Your task to perform on an android device: turn vacation reply on in the gmail app Image 0: 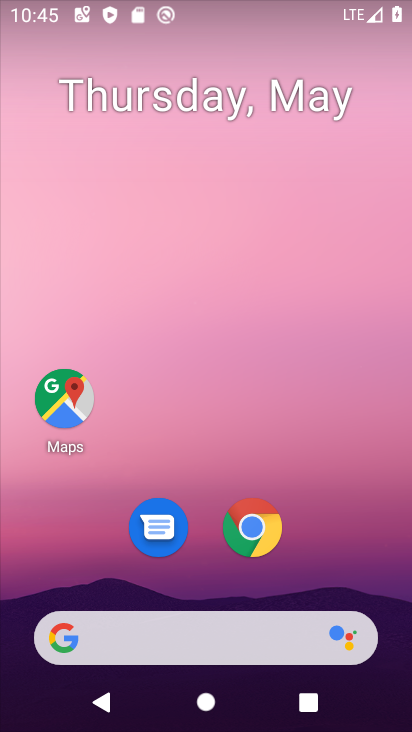
Step 0: drag from (325, 553) to (314, 98)
Your task to perform on an android device: turn vacation reply on in the gmail app Image 1: 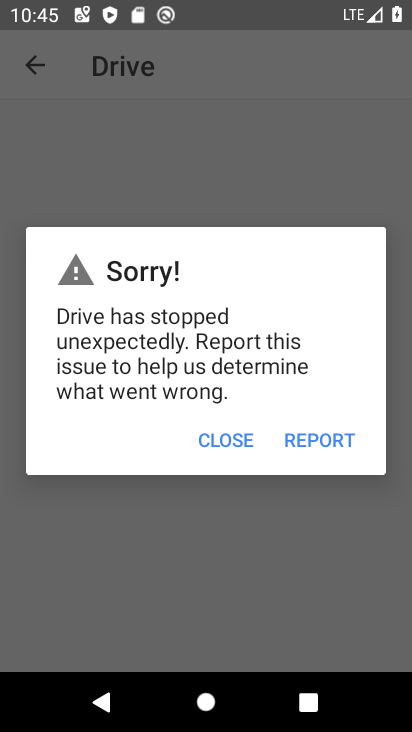
Step 1: press home button
Your task to perform on an android device: turn vacation reply on in the gmail app Image 2: 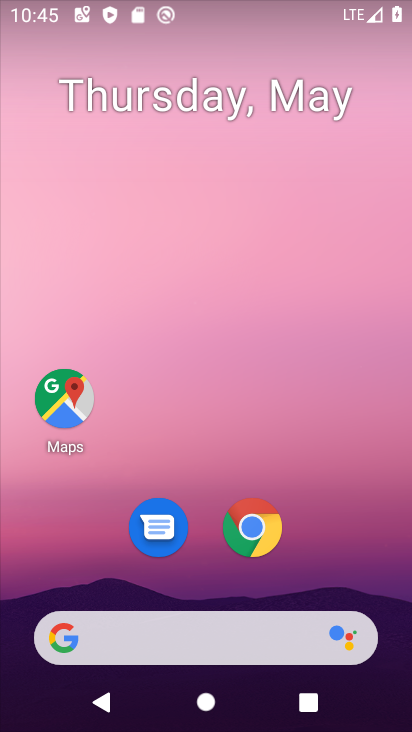
Step 2: drag from (393, 563) to (312, 59)
Your task to perform on an android device: turn vacation reply on in the gmail app Image 3: 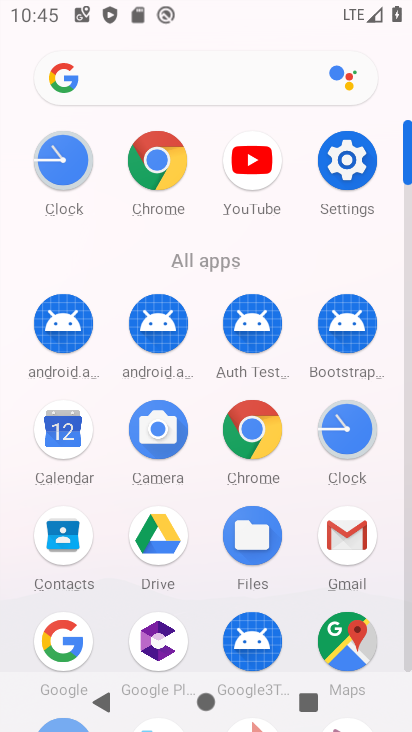
Step 3: click (340, 535)
Your task to perform on an android device: turn vacation reply on in the gmail app Image 4: 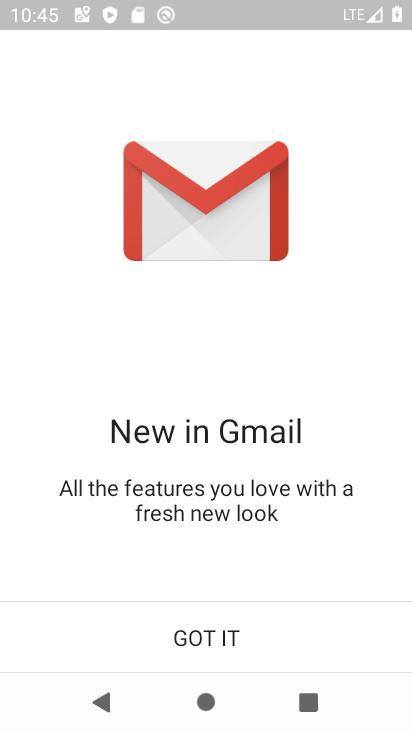
Step 4: click (282, 626)
Your task to perform on an android device: turn vacation reply on in the gmail app Image 5: 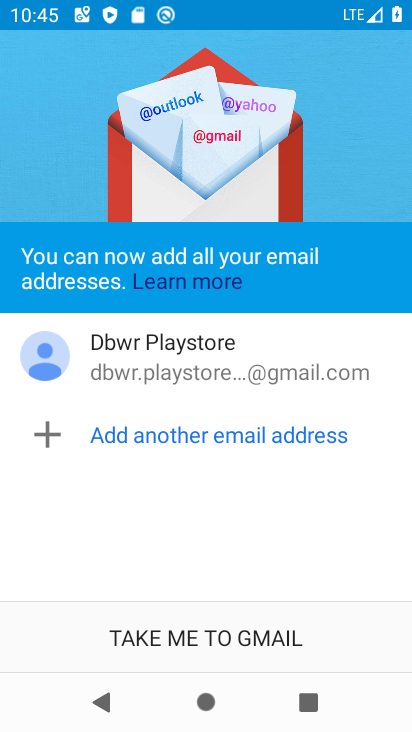
Step 5: click (256, 351)
Your task to perform on an android device: turn vacation reply on in the gmail app Image 6: 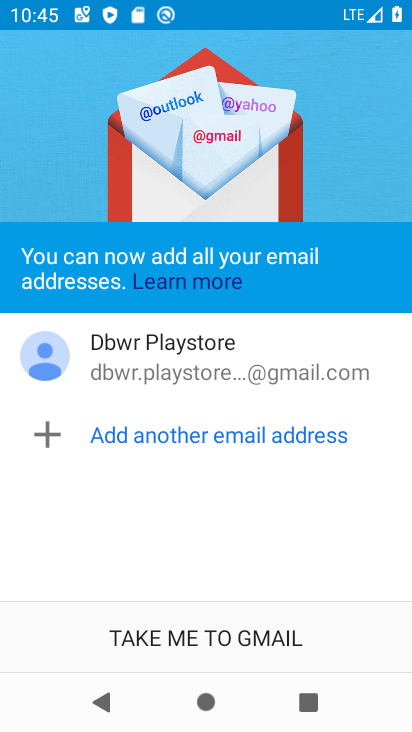
Step 6: click (294, 363)
Your task to perform on an android device: turn vacation reply on in the gmail app Image 7: 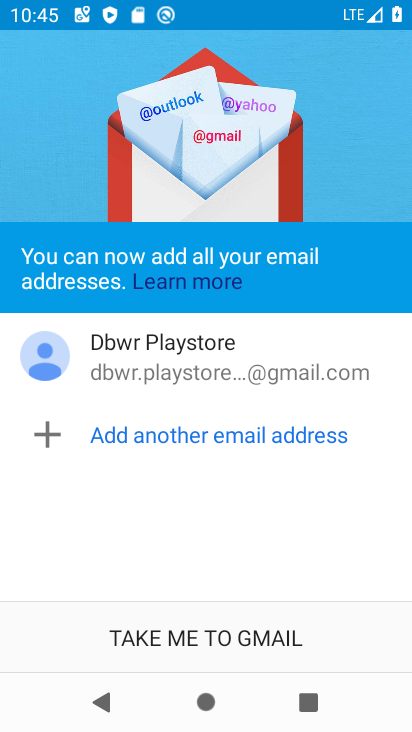
Step 7: click (249, 627)
Your task to perform on an android device: turn vacation reply on in the gmail app Image 8: 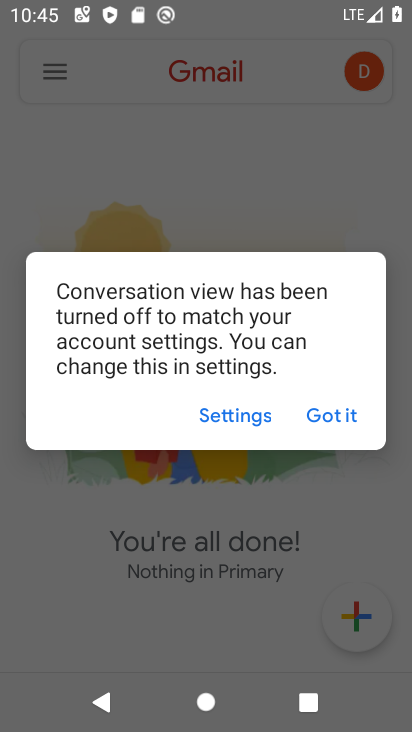
Step 8: click (322, 412)
Your task to perform on an android device: turn vacation reply on in the gmail app Image 9: 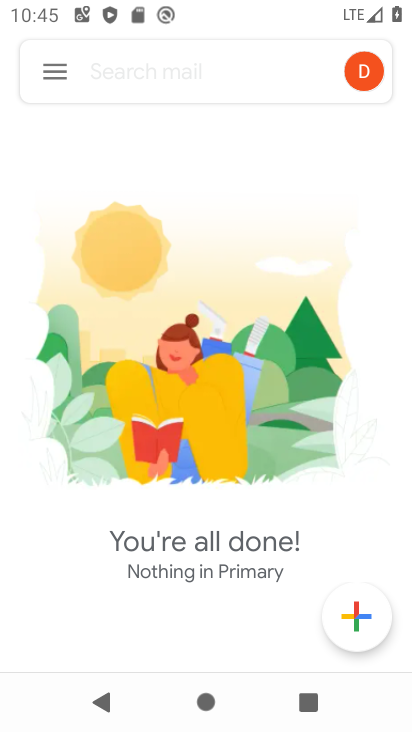
Step 9: click (49, 52)
Your task to perform on an android device: turn vacation reply on in the gmail app Image 10: 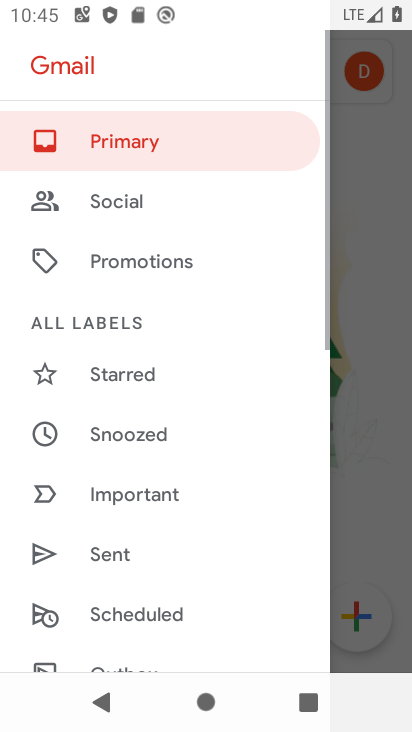
Step 10: drag from (135, 540) to (301, 51)
Your task to perform on an android device: turn vacation reply on in the gmail app Image 11: 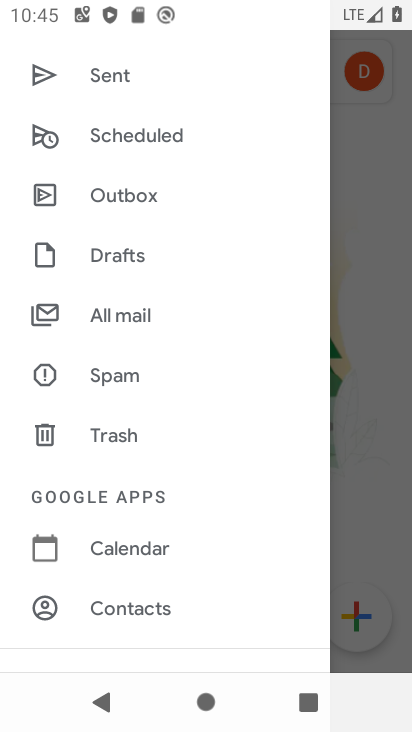
Step 11: drag from (160, 599) to (265, 217)
Your task to perform on an android device: turn vacation reply on in the gmail app Image 12: 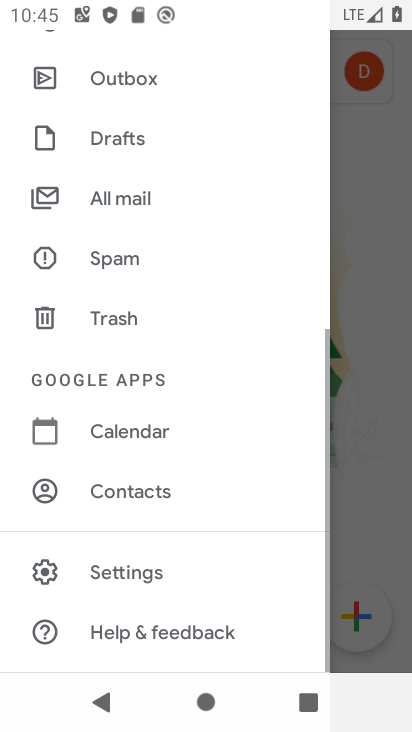
Step 12: click (148, 577)
Your task to perform on an android device: turn vacation reply on in the gmail app Image 13: 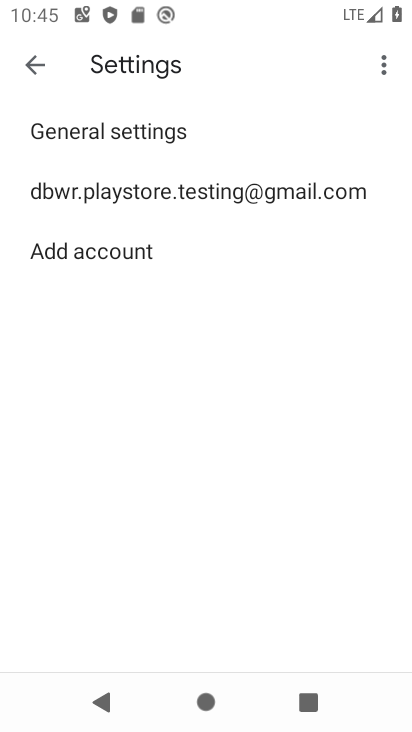
Step 13: click (252, 178)
Your task to perform on an android device: turn vacation reply on in the gmail app Image 14: 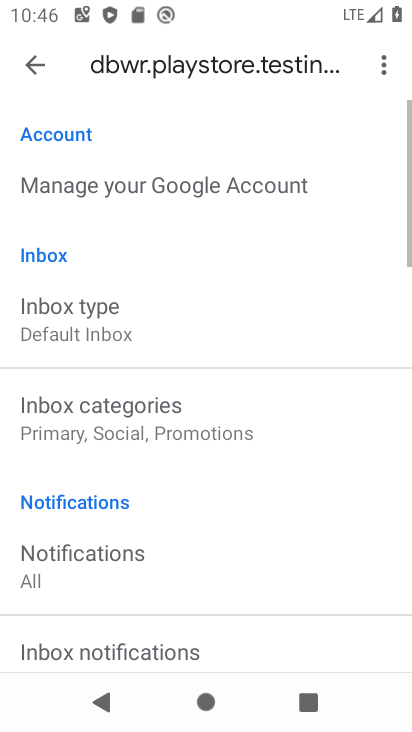
Step 14: drag from (208, 524) to (397, 22)
Your task to perform on an android device: turn vacation reply on in the gmail app Image 15: 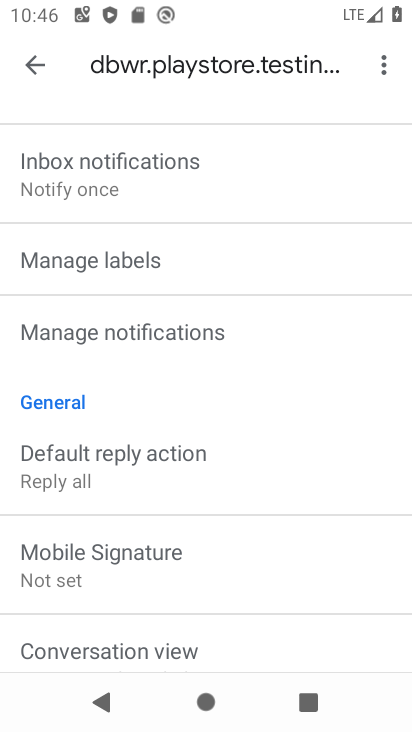
Step 15: drag from (262, 546) to (354, 77)
Your task to perform on an android device: turn vacation reply on in the gmail app Image 16: 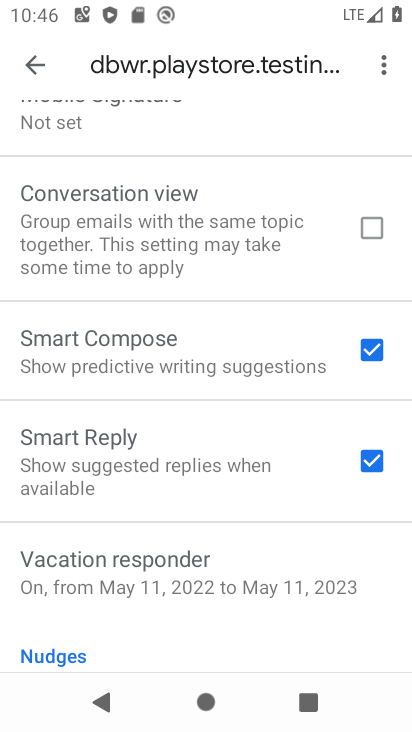
Step 16: click (275, 569)
Your task to perform on an android device: turn vacation reply on in the gmail app Image 17: 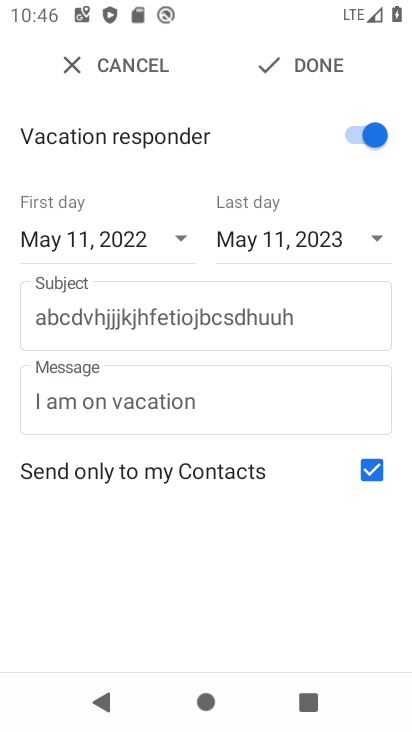
Step 17: task complete